Your task to perform on an android device: Go to Yahoo.com Image 0: 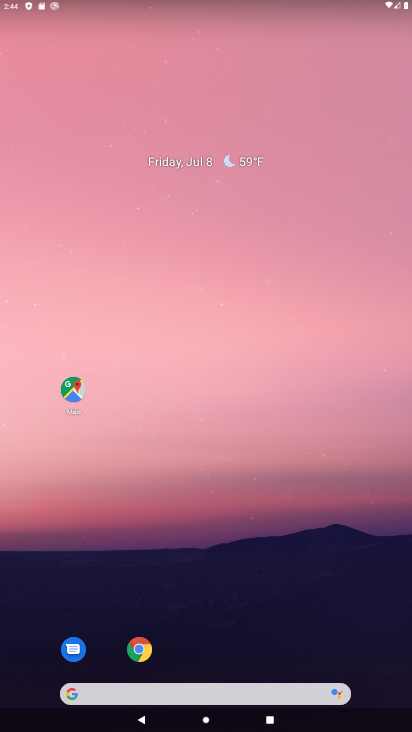
Step 0: drag from (252, 549) to (307, 34)
Your task to perform on an android device: Go to Yahoo.com Image 1: 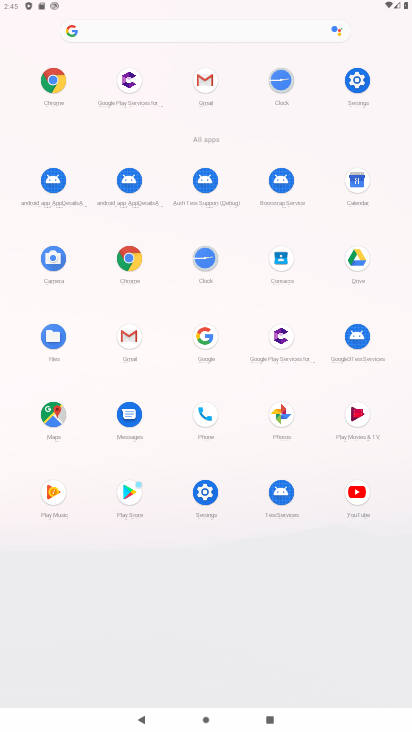
Step 1: click (55, 83)
Your task to perform on an android device: Go to Yahoo.com Image 2: 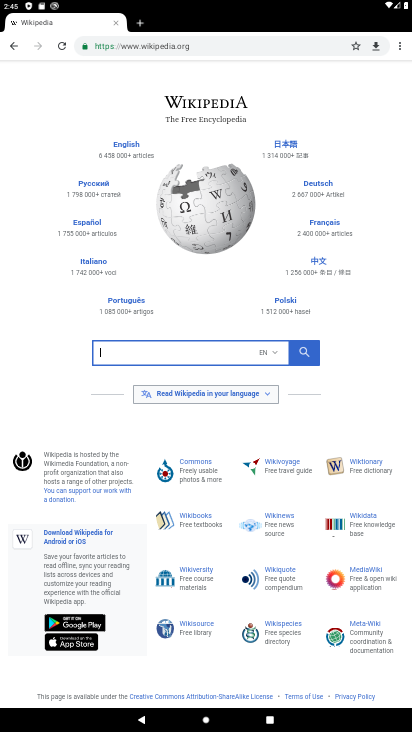
Step 2: click (262, 37)
Your task to perform on an android device: Go to Yahoo.com Image 3: 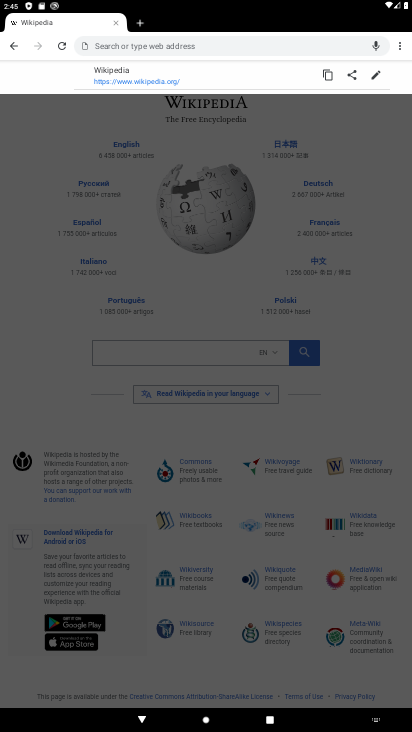
Step 3: type "yahoo.com"
Your task to perform on an android device: Go to Yahoo.com Image 4: 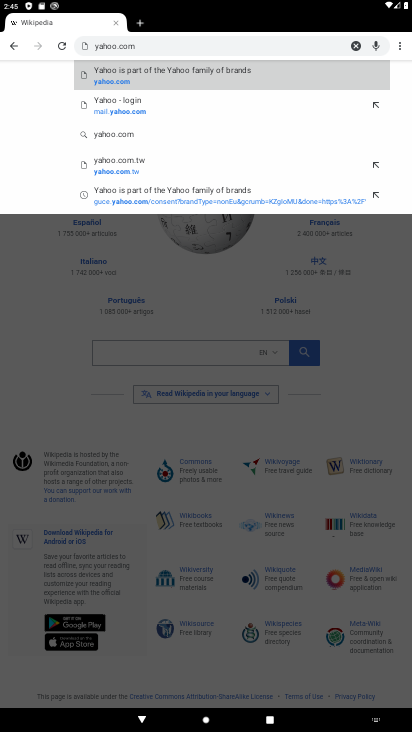
Step 4: click (116, 75)
Your task to perform on an android device: Go to Yahoo.com Image 5: 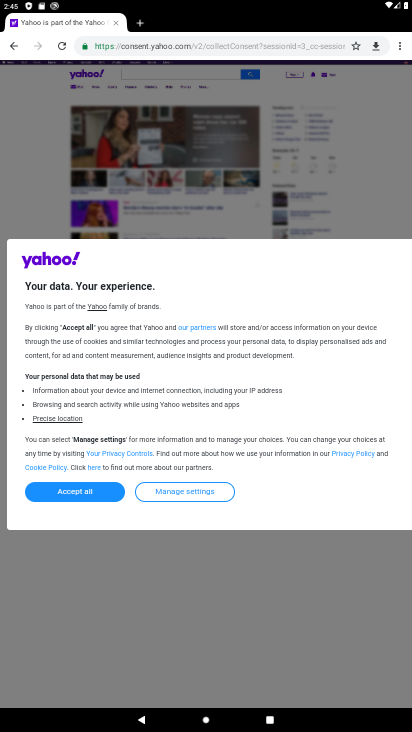
Step 5: task complete